Your task to perform on an android device: Search for Mexican restaurants on Maps Image 0: 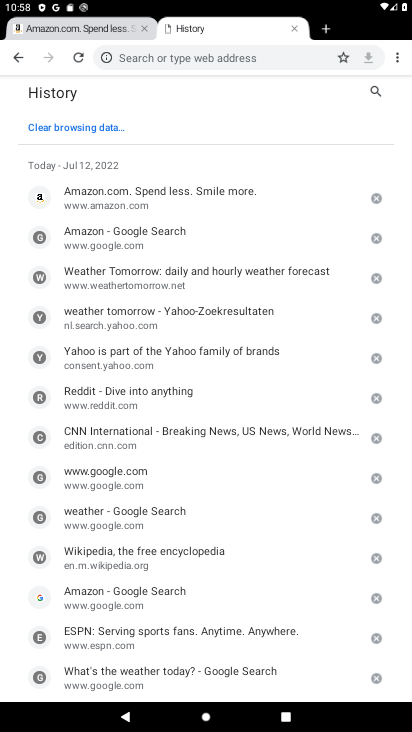
Step 0: drag from (251, 640) to (235, 253)
Your task to perform on an android device: Search for Mexican restaurants on Maps Image 1: 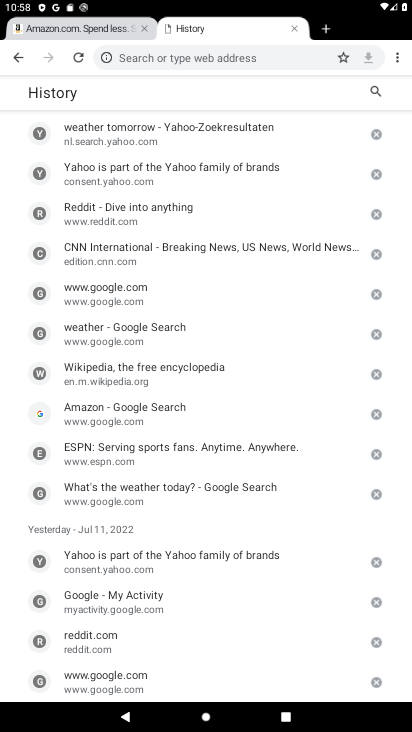
Step 1: press home button
Your task to perform on an android device: Search for Mexican restaurants on Maps Image 2: 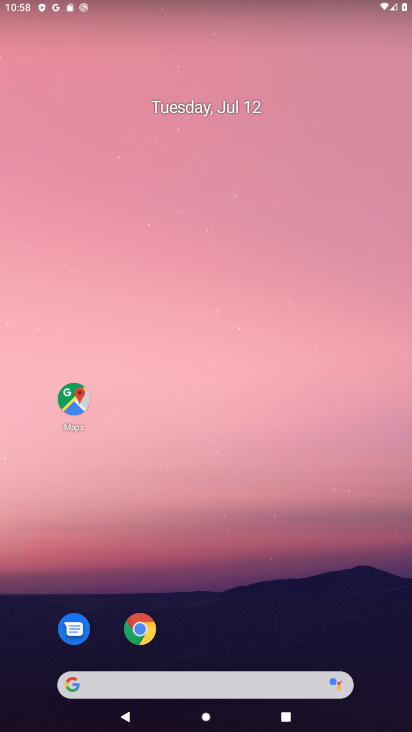
Step 2: drag from (229, 645) to (239, 189)
Your task to perform on an android device: Search for Mexican restaurants on Maps Image 3: 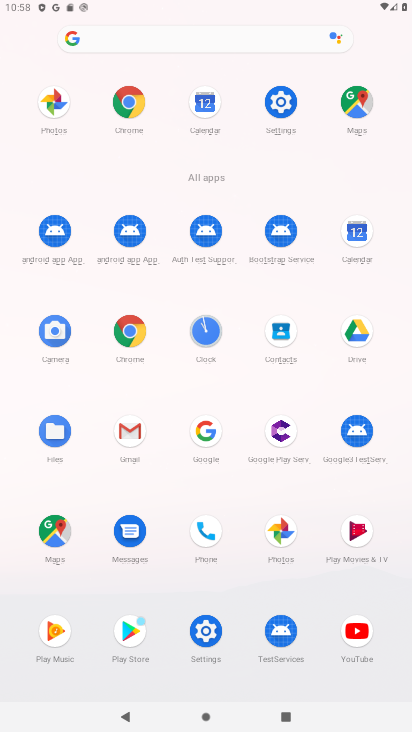
Step 3: click (58, 525)
Your task to perform on an android device: Search for Mexican restaurants on Maps Image 4: 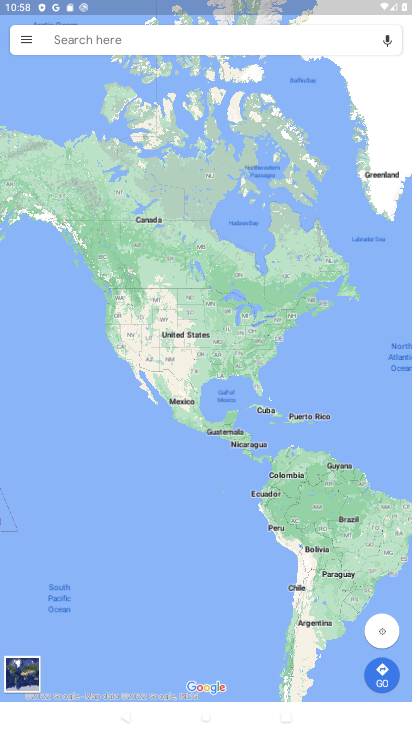
Step 4: click (181, 35)
Your task to perform on an android device: Search for Mexican restaurants on Maps Image 5: 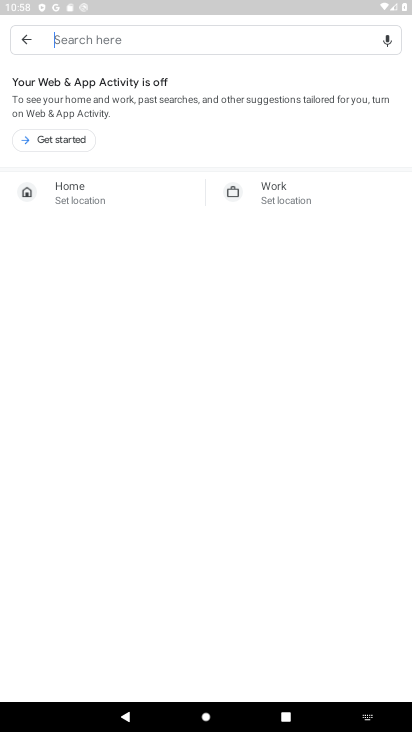
Step 5: type " Mexican restaurant "
Your task to perform on an android device: Search for Mexican restaurants on Maps Image 6: 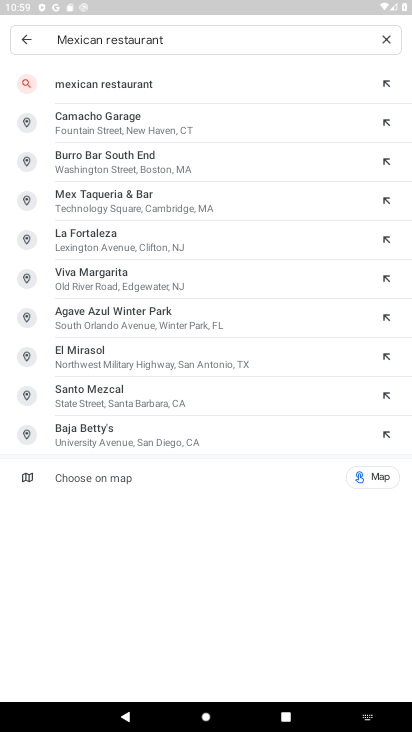
Step 6: click (82, 73)
Your task to perform on an android device: Search for Mexican restaurants on Maps Image 7: 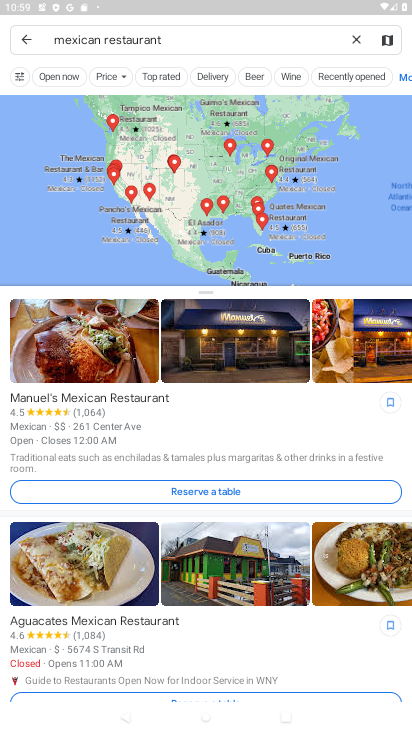
Step 7: task complete